Your task to perform on an android device: View the shopping cart on ebay. Add panasonic triple a to the cart on ebay, then select checkout. Image 0: 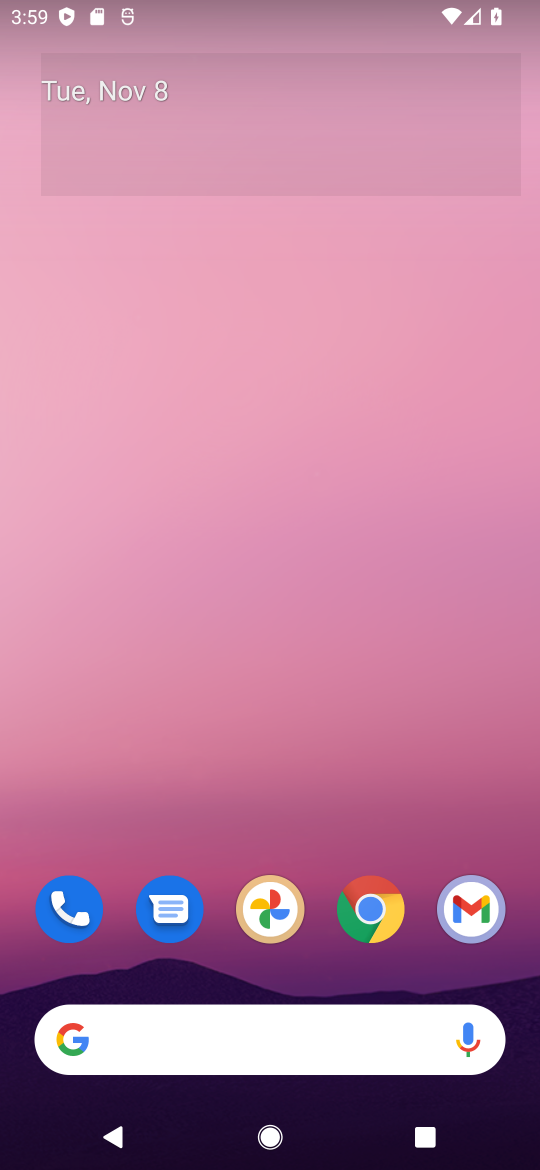
Step 0: click (368, 909)
Your task to perform on an android device: View the shopping cart on ebay. Add panasonic triple a to the cart on ebay, then select checkout. Image 1: 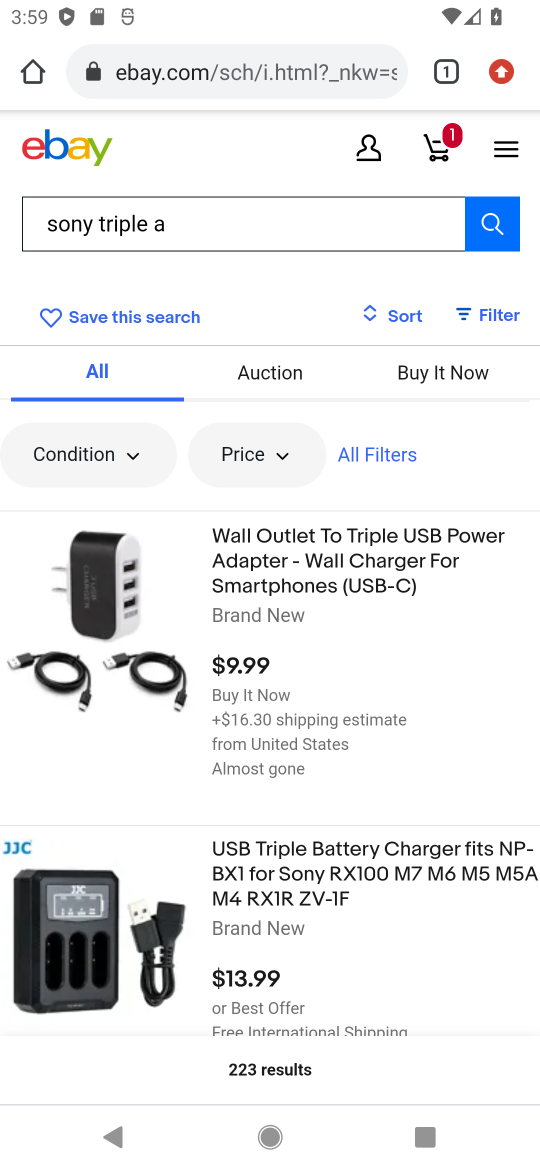
Step 1: click (342, 214)
Your task to perform on an android device: View the shopping cart on ebay. Add panasonic triple a to the cart on ebay, then select checkout. Image 2: 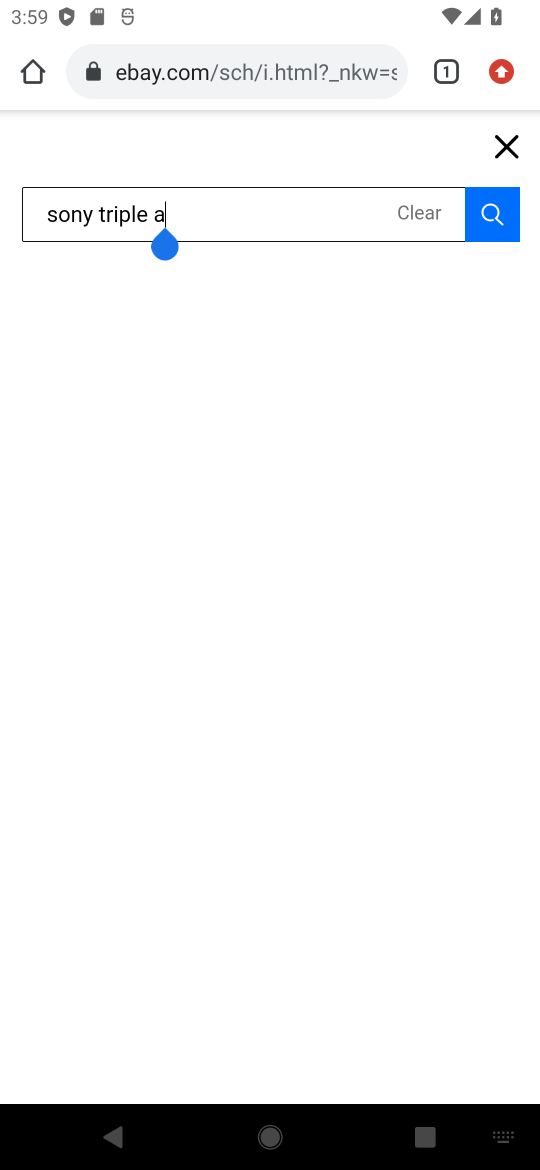
Step 2: click (420, 206)
Your task to perform on an android device: View the shopping cart on ebay. Add panasonic triple a to the cart on ebay, then select checkout. Image 3: 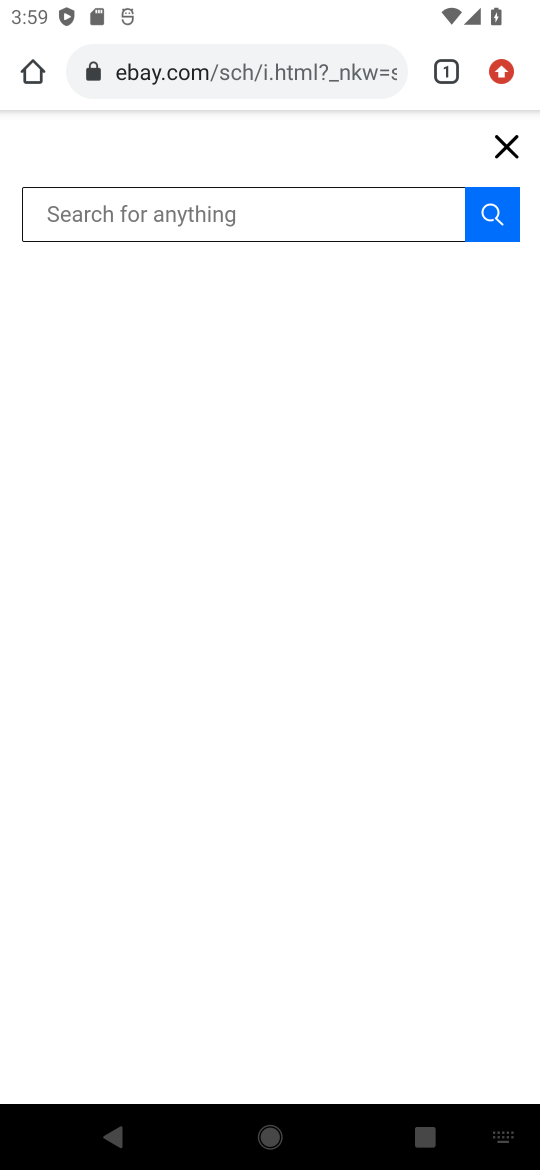
Step 3: click (107, 202)
Your task to perform on an android device: View the shopping cart on ebay. Add panasonic triple a to the cart on ebay, then select checkout. Image 4: 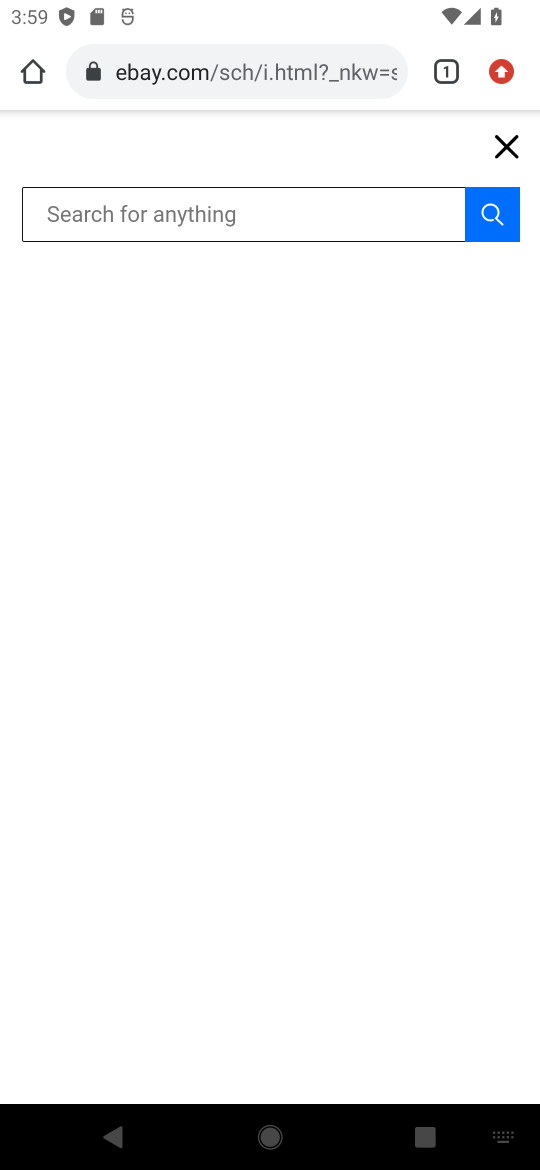
Step 4: type " panasonic triple a"
Your task to perform on an android device: View the shopping cart on ebay. Add panasonic triple a to the cart on ebay, then select checkout. Image 5: 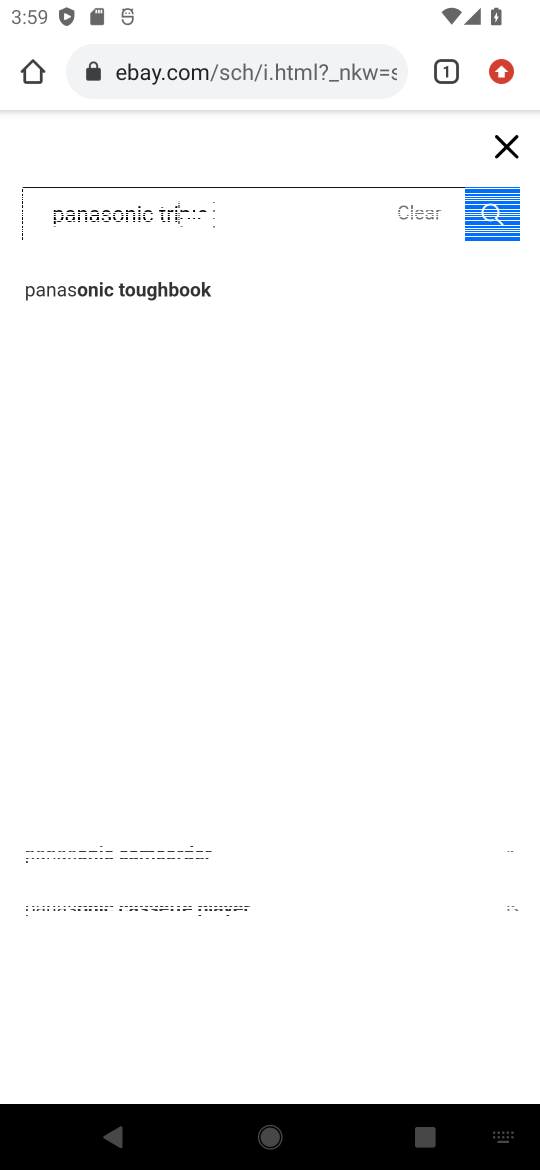
Step 5: press enter
Your task to perform on an android device: View the shopping cart on ebay. Add panasonic triple a to the cart on ebay, then select checkout. Image 6: 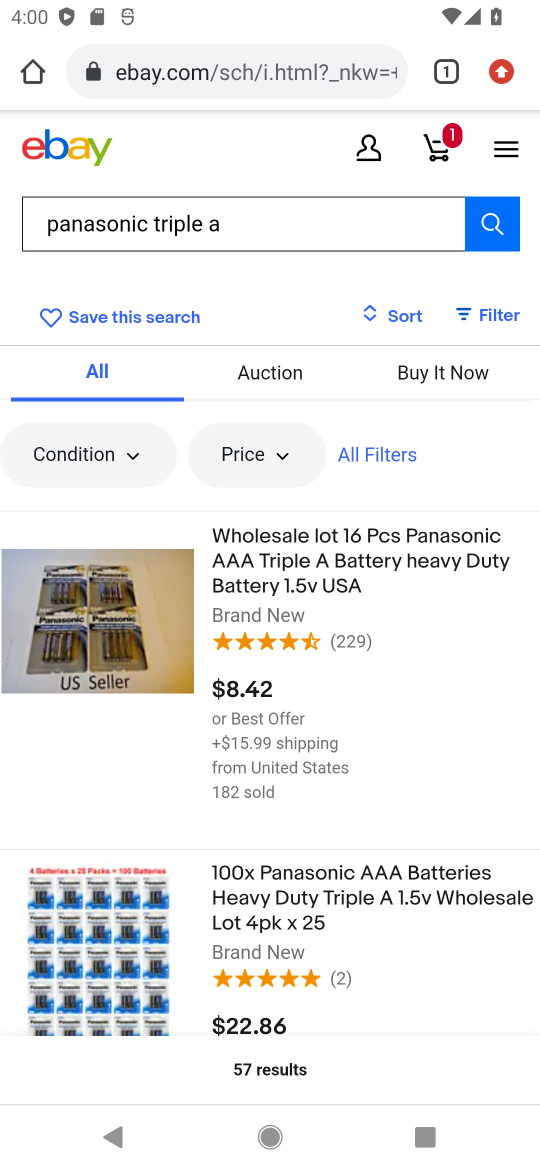
Step 6: click (300, 582)
Your task to perform on an android device: View the shopping cart on ebay. Add panasonic triple a to the cart on ebay, then select checkout. Image 7: 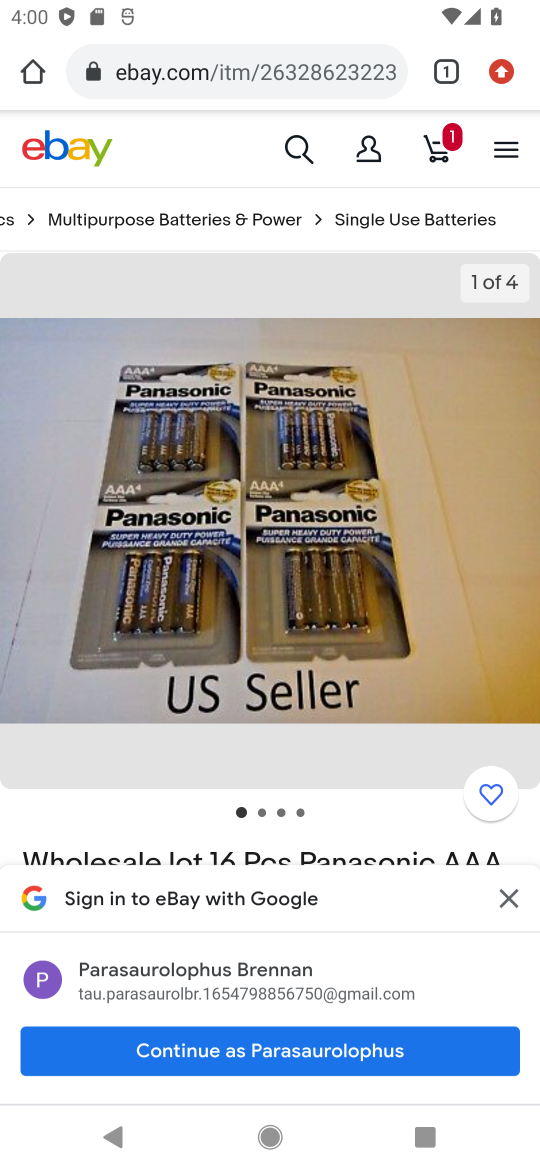
Step 7: click (509, 884)
Your task to perform on an android device: View the shopping cart on ebay. Add panasonic triple a to the cart on ebay, then select checkout. Image 8: 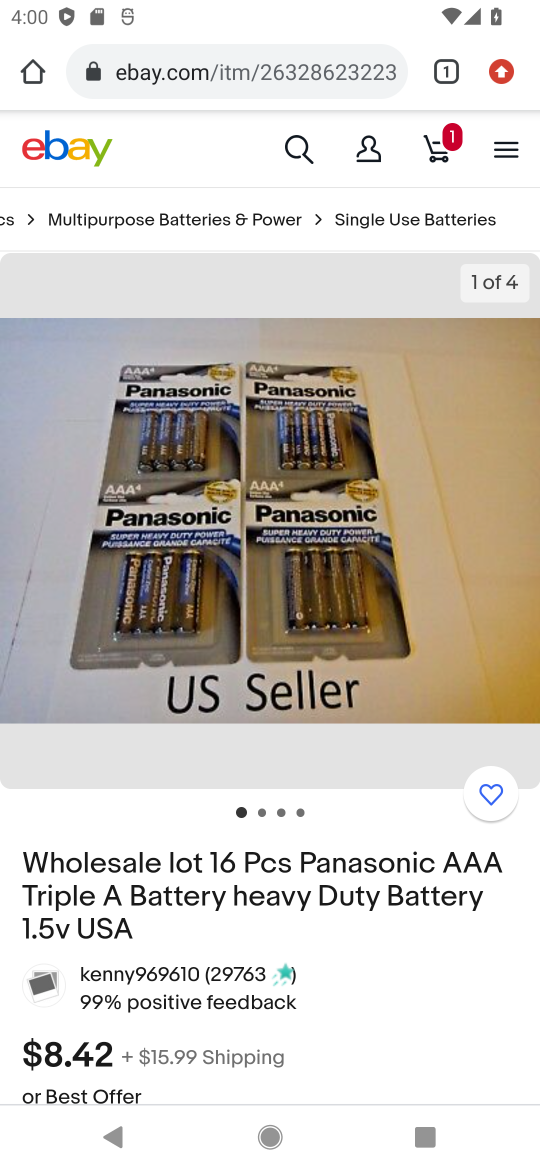
Step 8: drag from (242, 964) to (448, 367)
Your task to perform on an android device: View the shopping cart on ebay. Add panasonic triple a to the cart on ebay, then select checkout. Image 9: 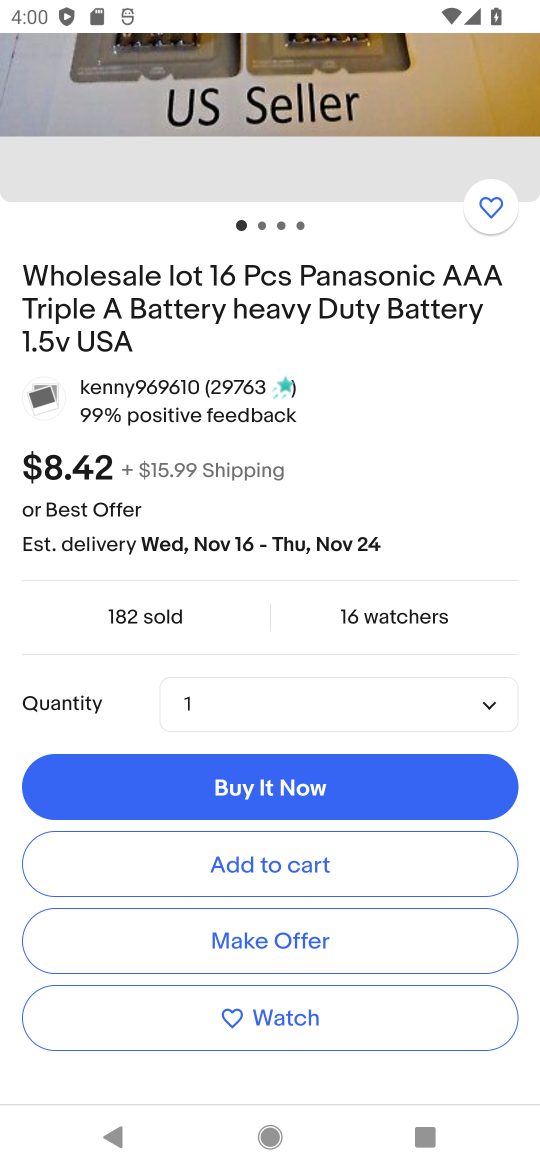
Step 9: click (280, 857)
Your task to perform on an android device: View the shopping cart on ebay. Add panasonic triple a to the cart on ebay, then select checkout. Image 10: 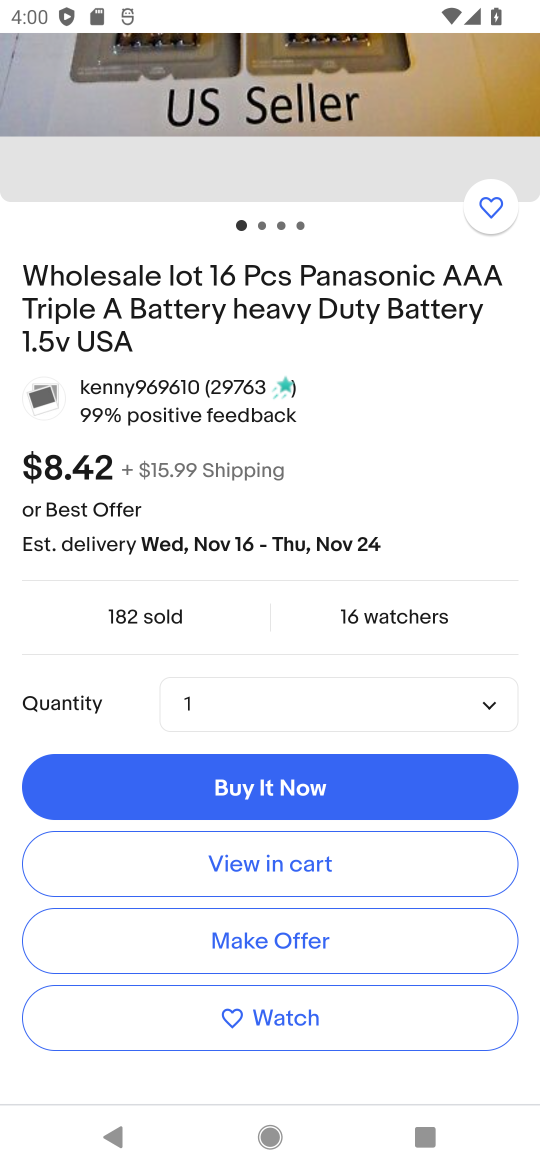
Step 10: click (280, 857)
Your task to perform on an android device: View the shopping cart on ebay. Add panasonic triple a to the cart on ebay, then select checkout. Image 11: 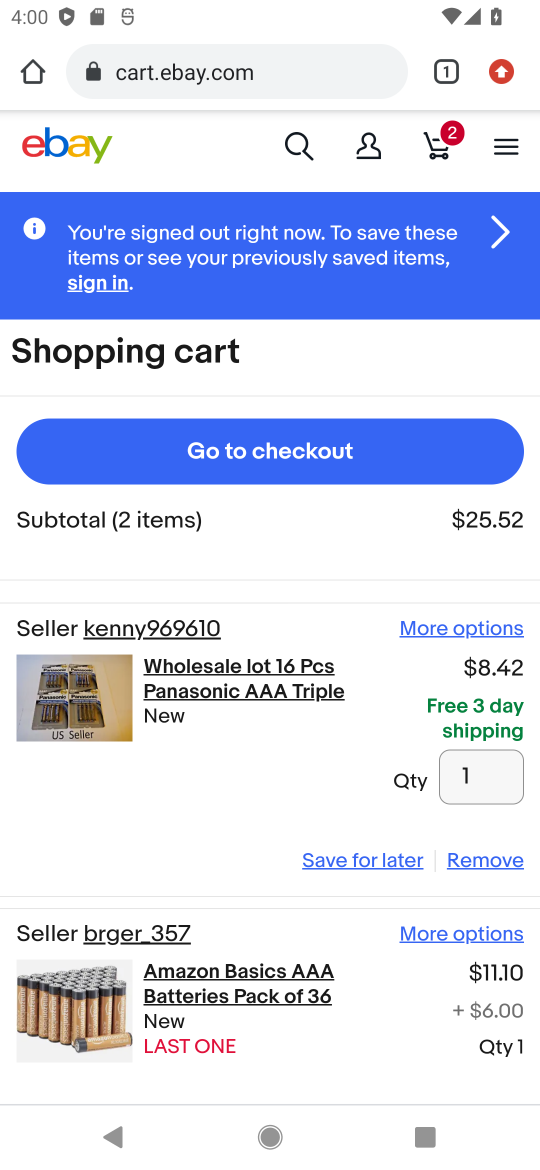
Step 11: drag from (238, 816) to (322, 575)
Your task to perform on an android device: View the shopping cart on ebay. Add panasonic triple a to the cart on ebay, then select checkout. Image 12: 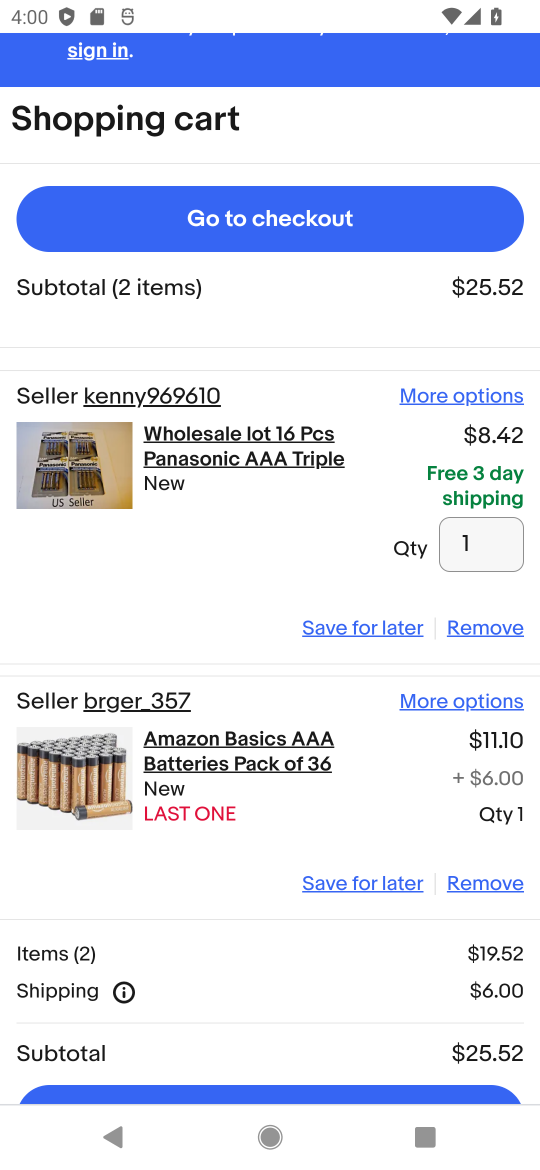
Step 12: click (472, 878)
Your task to perform on an android device: View the shopping cart on ebay. Add panasonic triple a to the cart on ebay, then select checkout. Image 13: 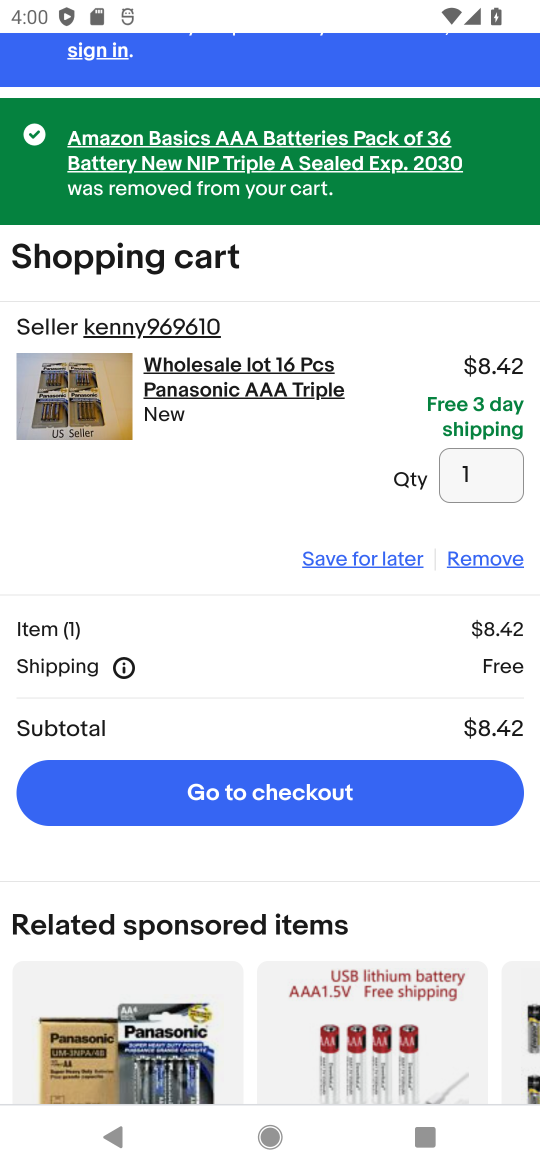
Step 13: click (305, 790)
Your task to perform on an android device: View the shopping cart on ebay. Add panasonic triple a to the cart on ebay, then select checkout. Image 14: 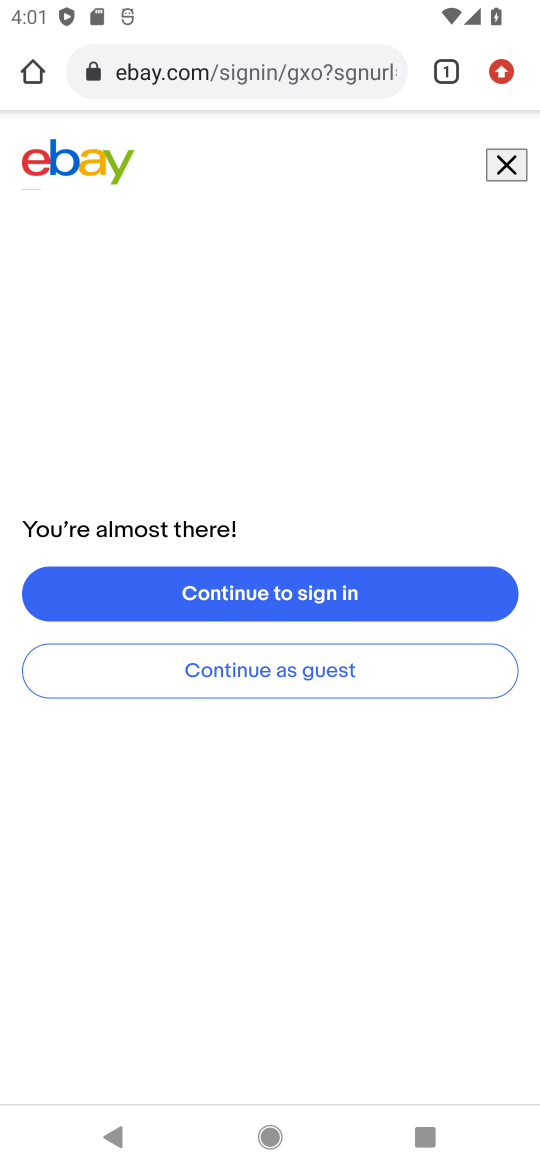
Step 14: task complete